Your task to perform on an android device: turn on data saver in the chrome app Image 0: 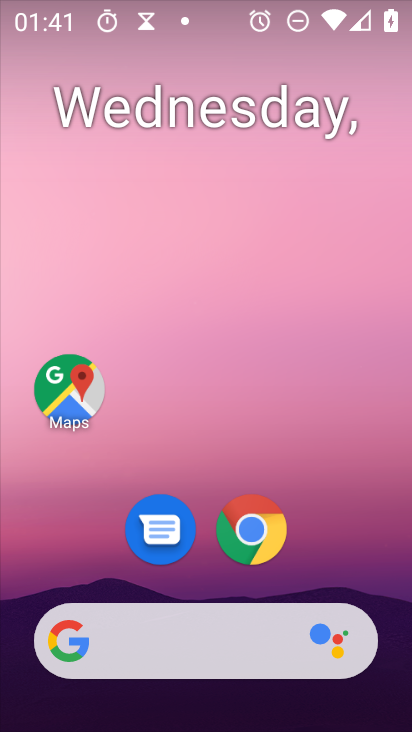
Step 0: drag from (295, 639) to (409, 1)
Your task to perform on an android device: turn on data saver in the chrome app Image 1: 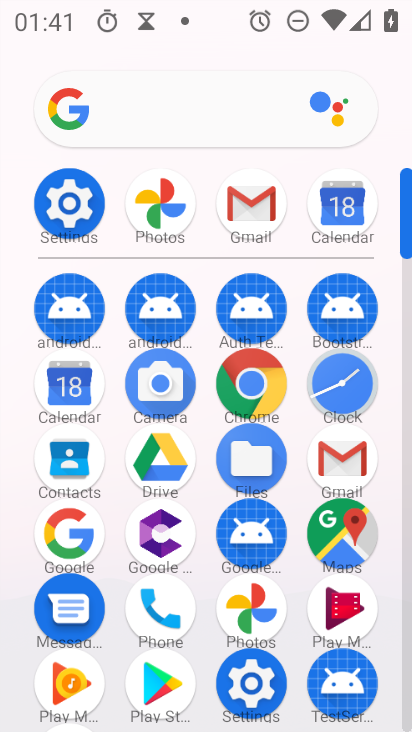
Step 1: click (236, 362)
Your task to perform on an android device: turn on data saver in the chrome app Image 2: 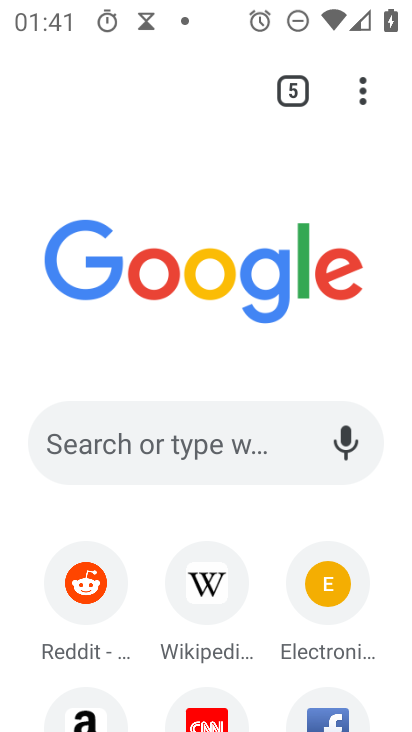
Step 2: drag from (360, 84) to (146, 572)
Your task to perform on an android device: turn on data saver in the chrome app Image 3: 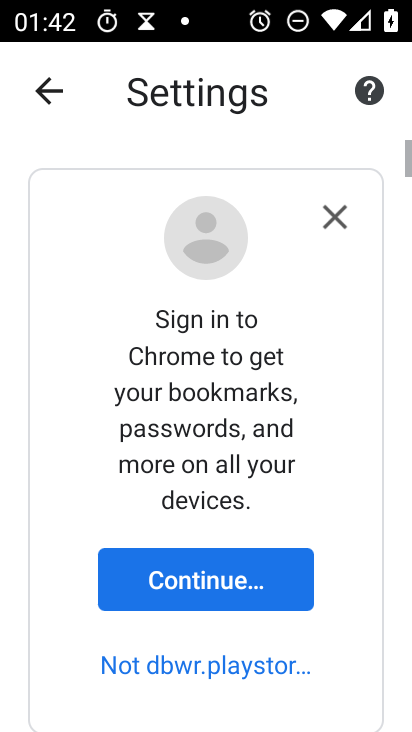
Step 3: drag from (355, 642) to (294, 32)
Your task to perform on an android device: turn on data saver in the chrome app Image 4: 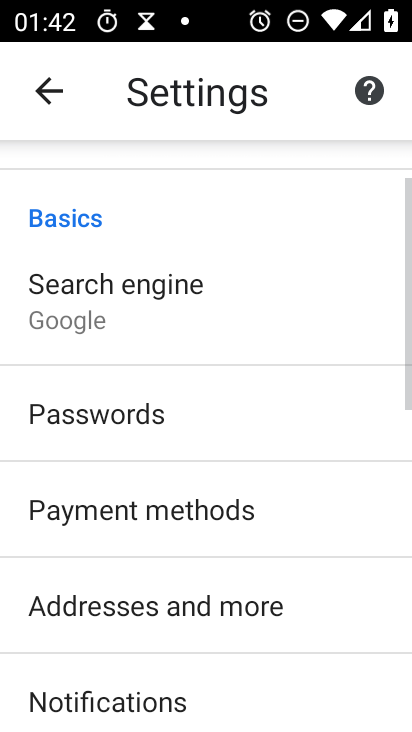
Step 4: drag from (346, 495) to (380, 169)
Your task to perform on an android device: turn on data saver in the chrome app Image 5: 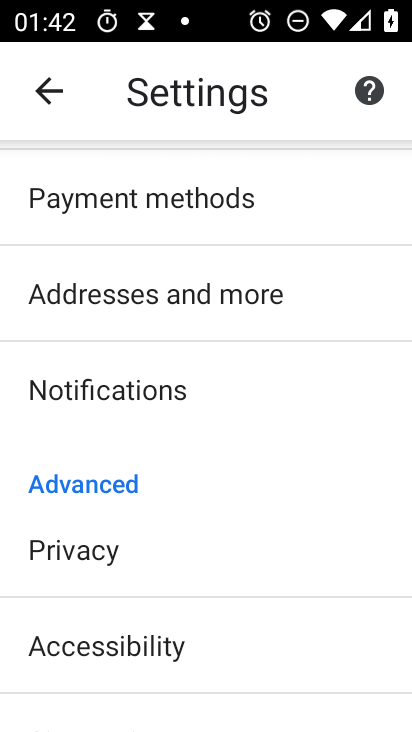
Step 5: drag from (265, 686) to (305, 167)
Your task to perform on an android device: turn on data saver in the chrome app Image 6: 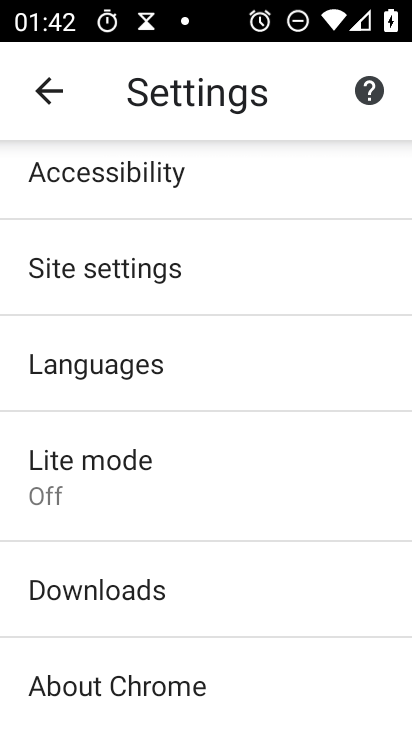
Step 6: click (151, 502)
Your task to perform on an android device: turn on data saver in the chrome app Image 7: 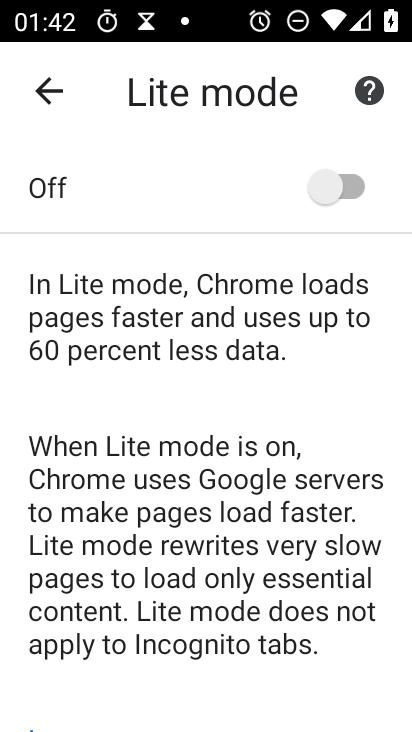
Step 7: click (353, 189)
Your task to perform on an android device: turn on data saver in the chrome app Image 8: 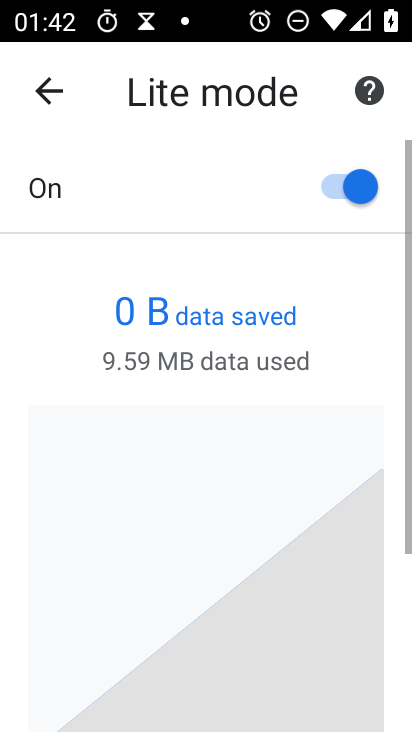
Step 8: task complete